Your task to perform on an android device: Search for "jbl charge 4" on newegg.com, select the first entry, add it to the cart, then select checkout. Image 0: 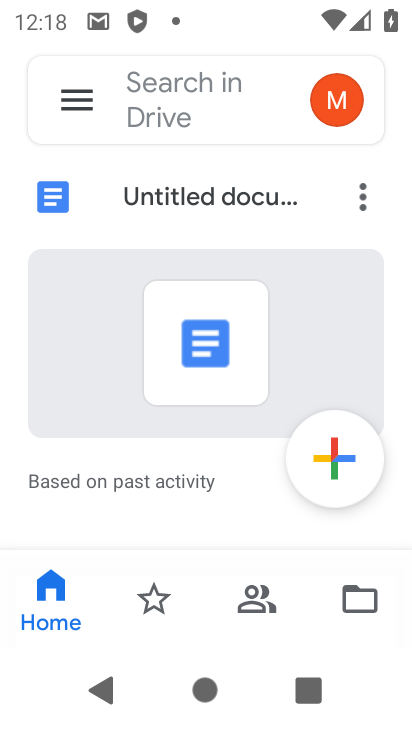
Step 0: press home button
Your task to perform on an android device: Search for "jbl charge 4" on newegg.com, select the first entry, add it to the cart, then select checkout. Image 1: 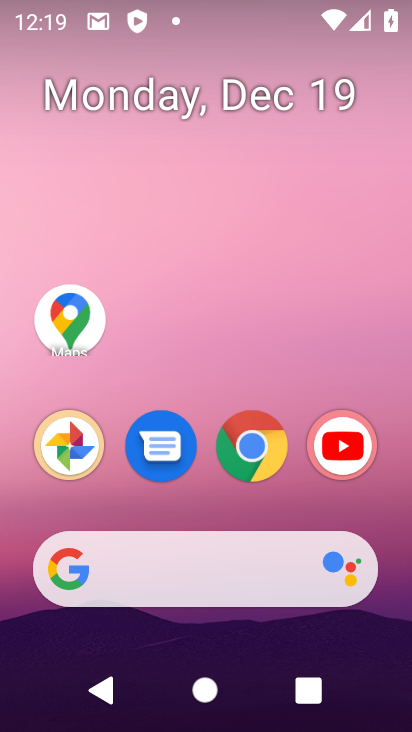
Step 1: click (263, 460)
Your task to perform on an android device: Search for "jbl charge 4" on newegg.com, select the first entry, add it to the cart, then select checkout. Image 2: 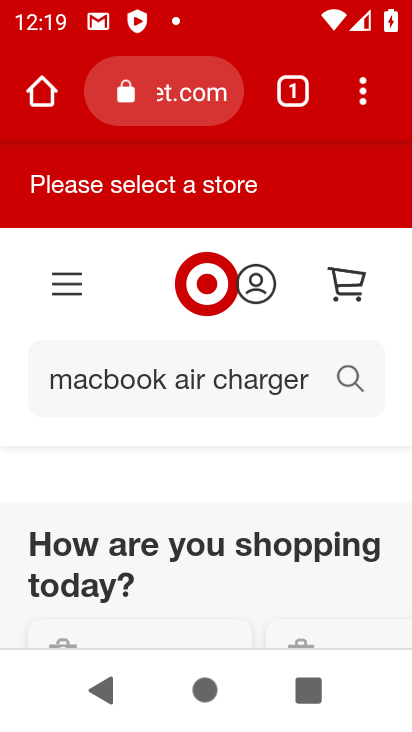
Step 2: click (199, 104)
Your task to perform on an android device: Search for "jbl charge 4" on newegg.com, select the first entry, add it to the cart, then select checkout. Image 3: 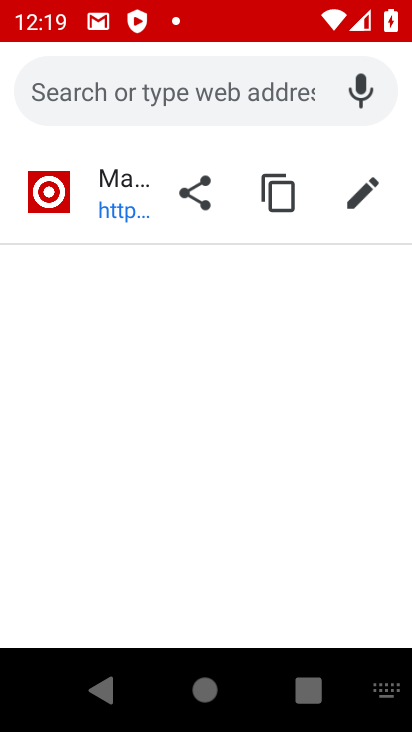
Step 3: type "newegg"
Your task to perform on an android device: Search for "jbl charge 4" on newegg.com, select the first entry, add it to the cart, then select checkout. Image 4: 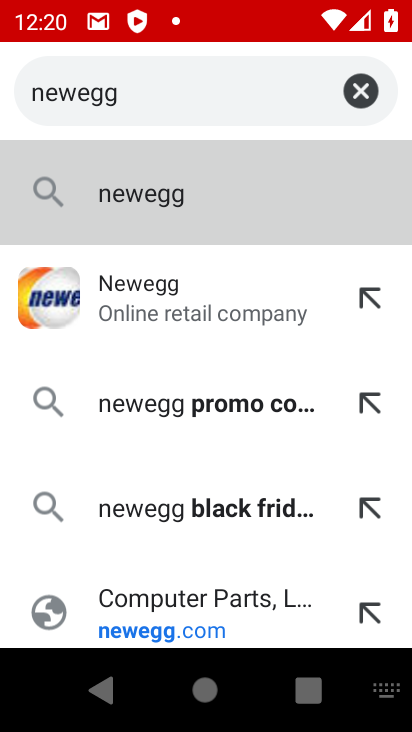
Step 4: click (135, 283)
Your task to perform on an android device: Search for "jbl charge 4" on newegg.com, select the first entry, add it to the cart, then select checkout. Image 5: 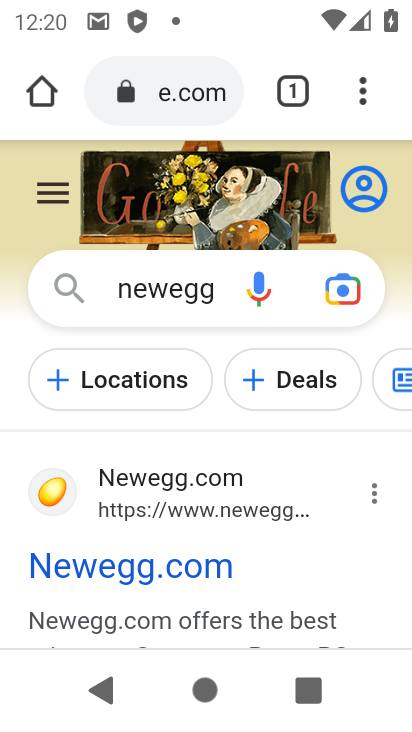
Step 5: click (159, 532)
Your task to perform on an android device: Search for "jbl charge 4" on newegg.com, select the first entry, add it to the cart, then select checkout. Image 6: 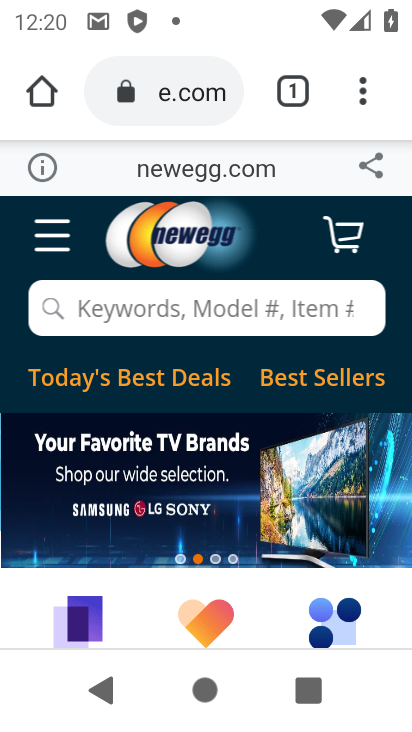
Step 6: click (204, 305)
Your task to perform on an android device: Search for "jbl charge 4" on newegg.com, select the first entry, add it to the cart, then select checkout. Image 7: 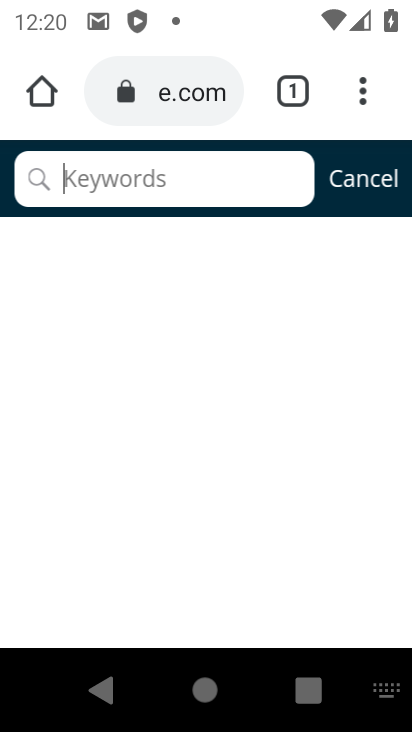
Step 7: type "jbl charge 4"
Your task to perform on an android device: Search for "jbl charge 4" on newegg.com, select the first entry, add it to the cart, then select checkout. Image 8: 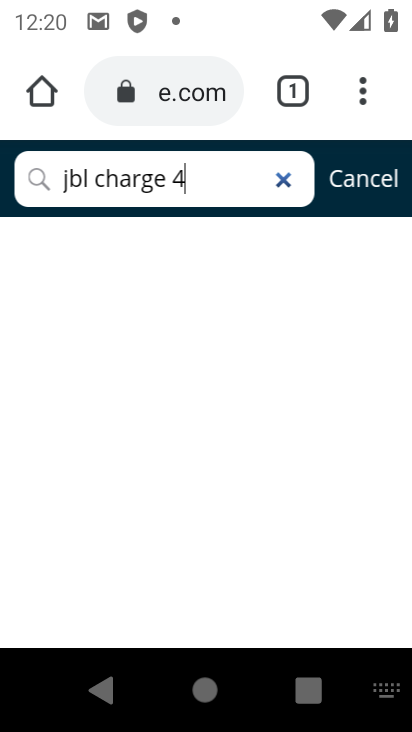
Step 8: task complete